Your task to perform on an android device: Open Google Chrome and open the bookmarks view Image 0: 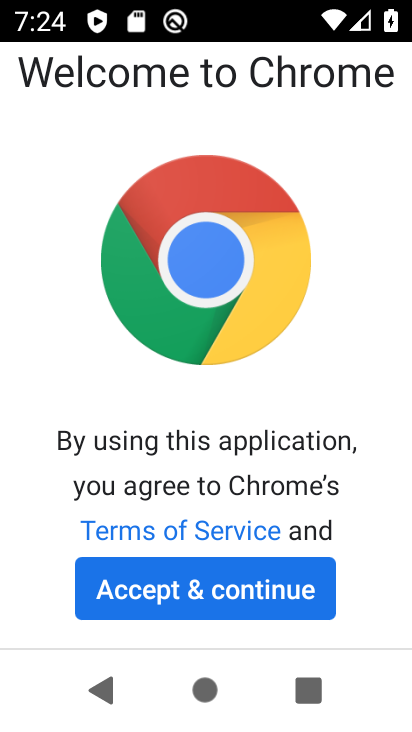
Step 0: click (275, 584)
Your task to perform on an android device: Open Google Chrome and open the bookmarks view Image 1: 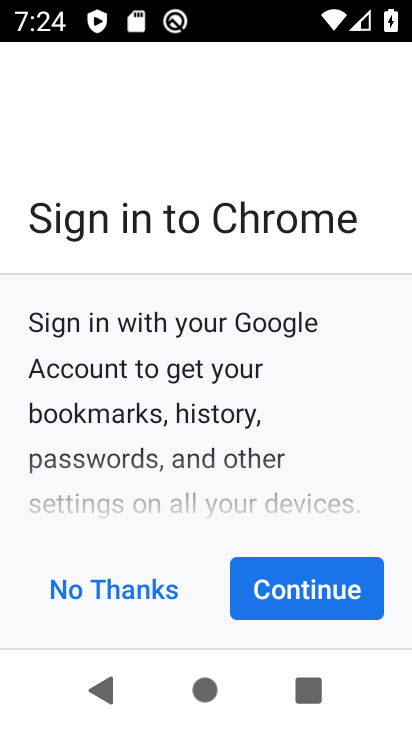
Step 1: click (293, 596)
Your task to perform on an android device: Open Google Chrome and open the bookmarks view Image 2: 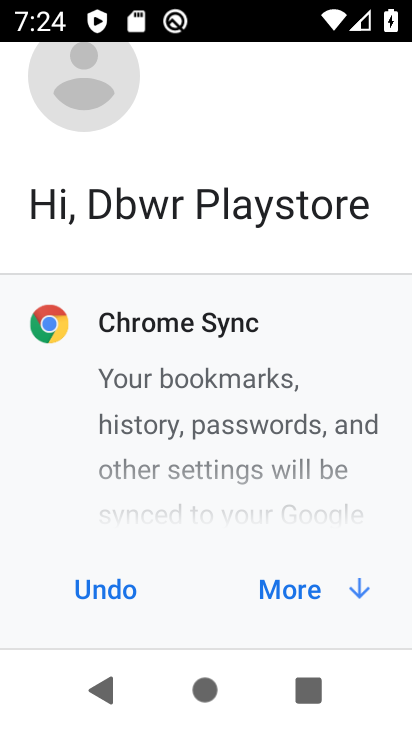
Step 2: click (293, 597)
Your task to perform on an android device: Open Google Chrome and open the bookmarks view Image 3: 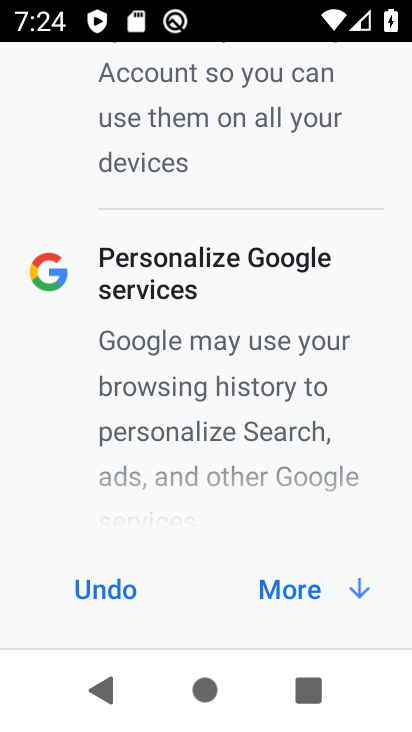
Step 3: click (293, 596)
Your task to perform on an android device: Open Google Chrome and open the bookmarks view Image 4: 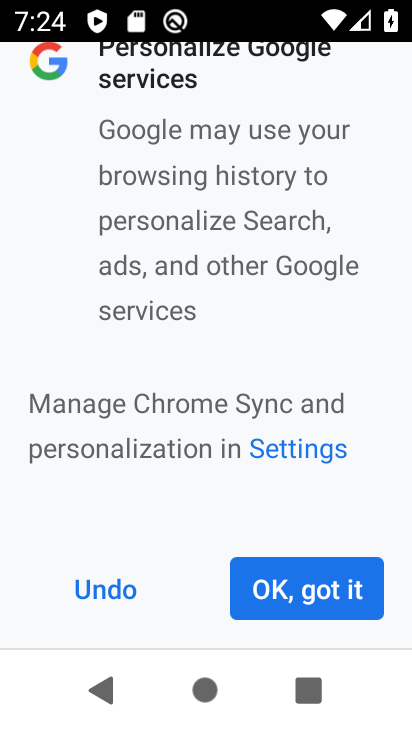
Step 4: click (318, 597)
Your task to perform on an android device: Open Google Chrome and open the bookmarks view Image 5: 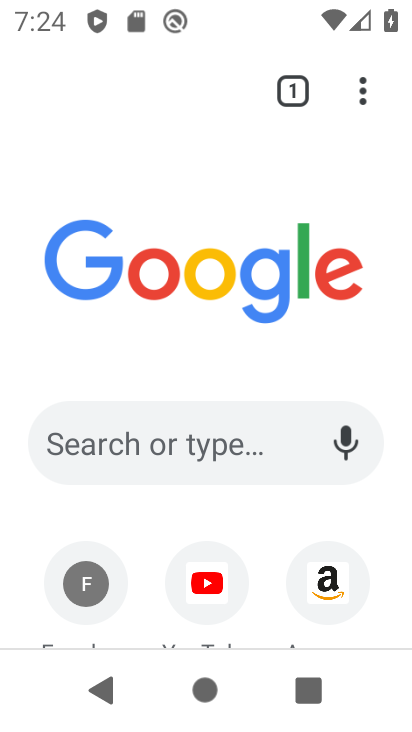
Step 5: task complete